Your task to perform on an android device: See recent photos Image 0: 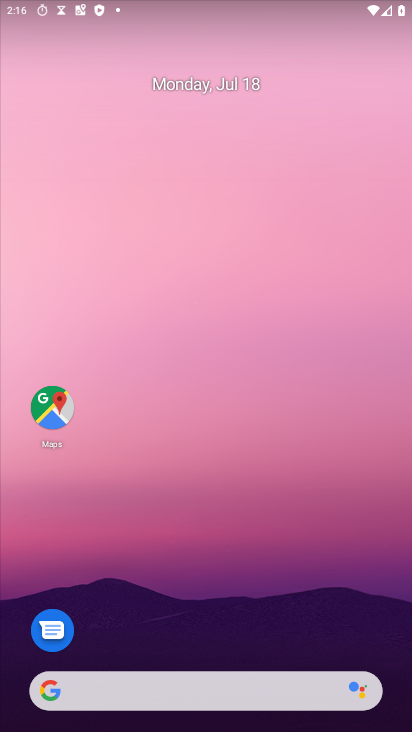
Step 0: drag from (297, 475) to (341, 0)
Your task to perform on an android device: See recent photos Image 1: 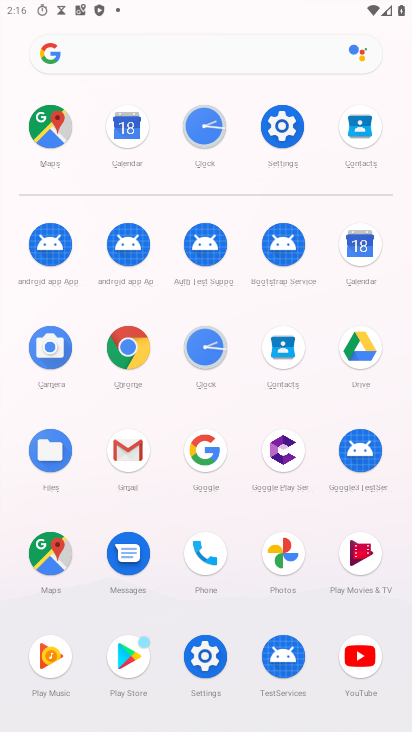
Step 1: click (283, 556)
Your task to perform on an android device: See recent photos Image 2: 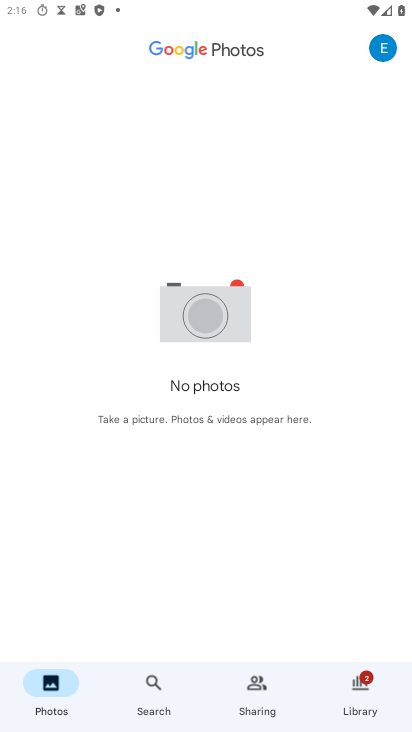
Step 2: task complete